Your task to perform on an android device: change text size in settings app Image 0: 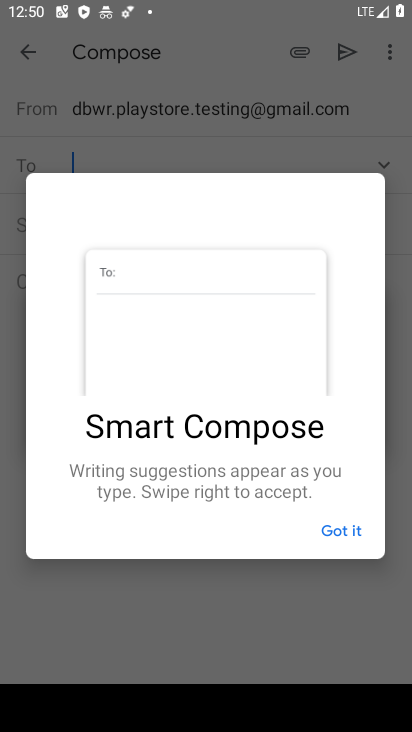
Step 0: press home button
Your task to perform on an android device: change text size in settings app Image 1: 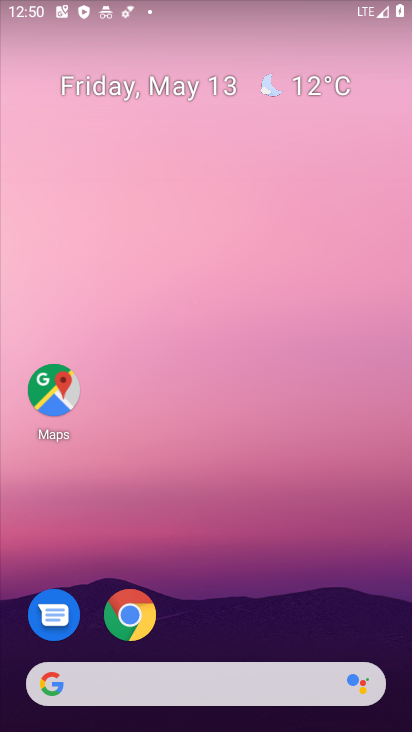
Step 1: drag from (199, 629) to (212, 100)
Your task to perform on an android device: change text size in settings app Image 2: 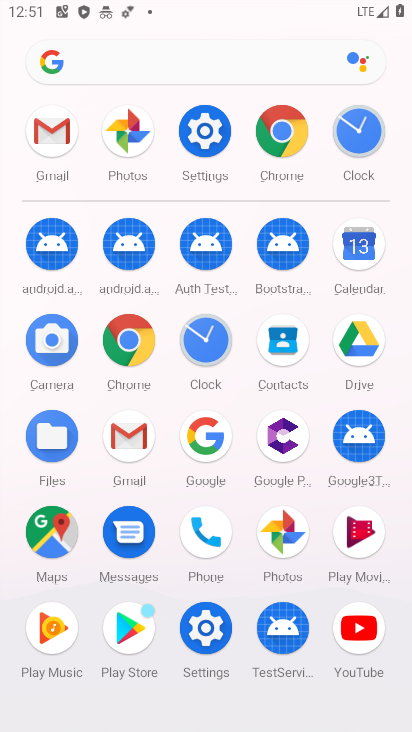
Step 2: click (199, 132)
Your task to perform on an android device: change text size in settings app Image 3: 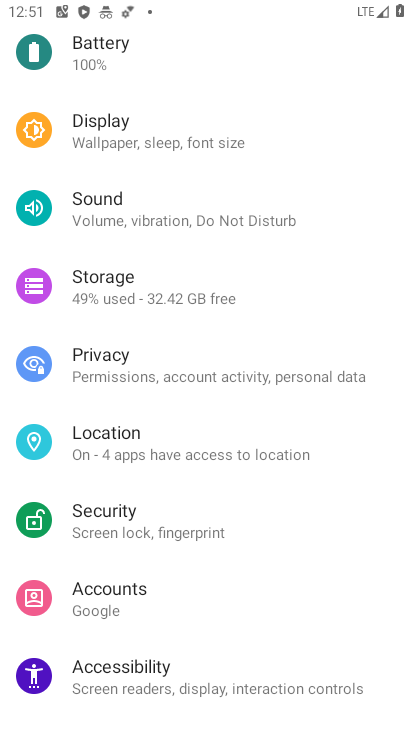
Step 3: click (157, 125)
Your task to perform on an android device: change text size in settings app Image 4: 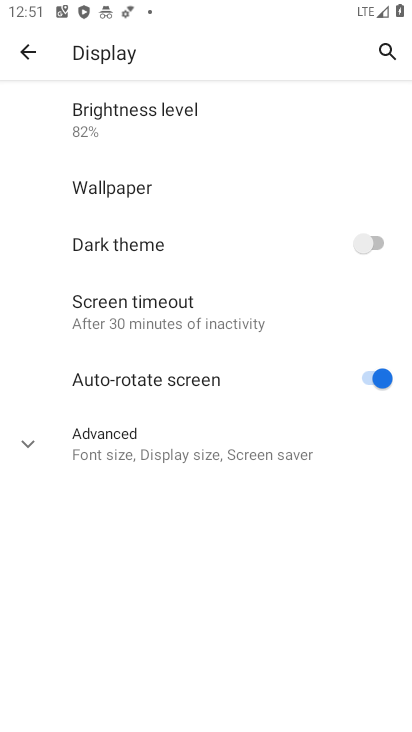
Step 4: click (146, 467)
Your task to perform on an android device: change text size in settings app Image 5: 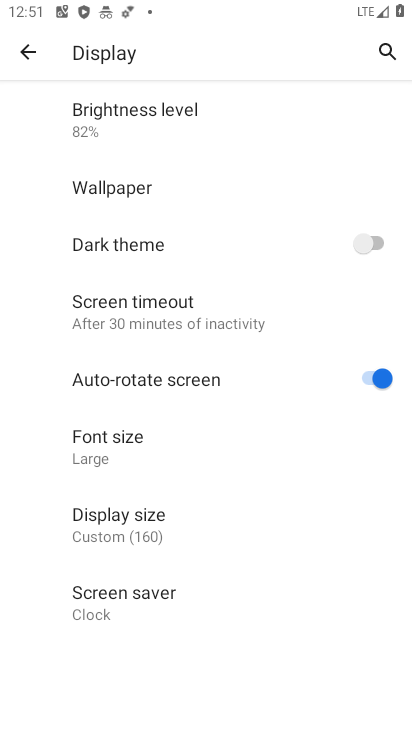
Step 5: click (119, 455)
Your task to perform on an android device: change text size in settings app Image 6: 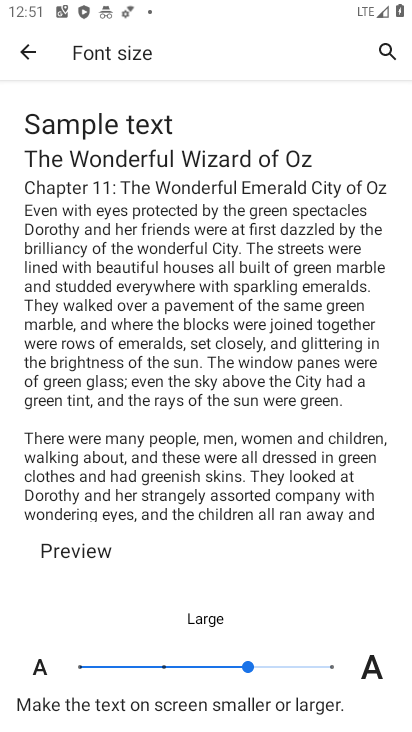
Step 6: click (82, 666)
Your task to perform on an android device: change text size in settings app Image 7: 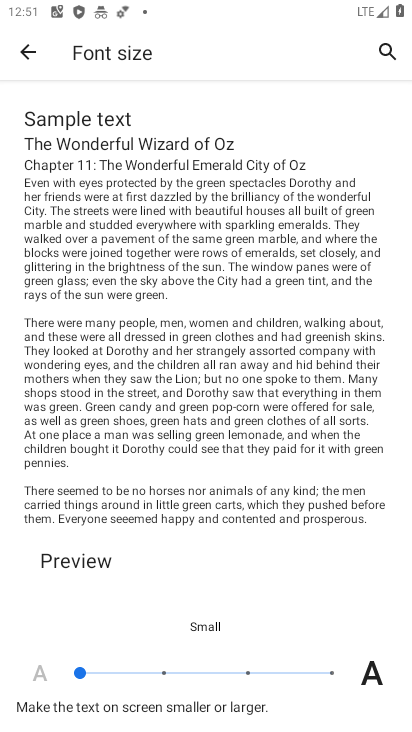
Step 7: task complete